Your task to perform on an android device: turn pop-ups off in chrome Image 0: 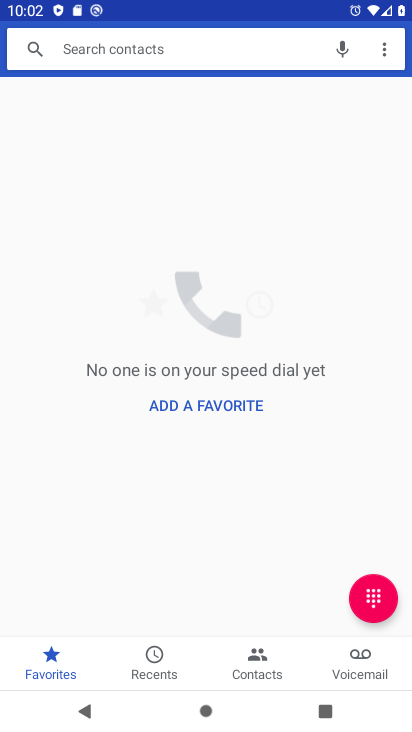
Step 0: press back button
Your task to perform on an android device: turn pop-ups off in chrome Image 1: 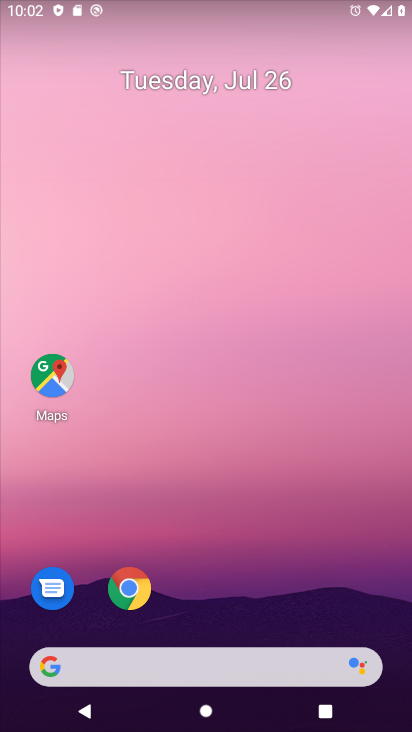
Step 1: click (131, 592)
Your task to perform on an android device: turn pop-ups off in chrome Image 2: 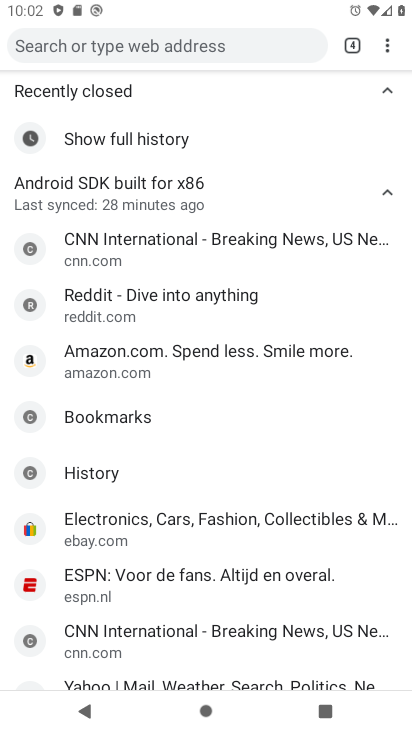
Step 2: drag from (389, 44) to (238, 379)
Your task to perform on an android device: turn pop-ups off in chrome Image 3: 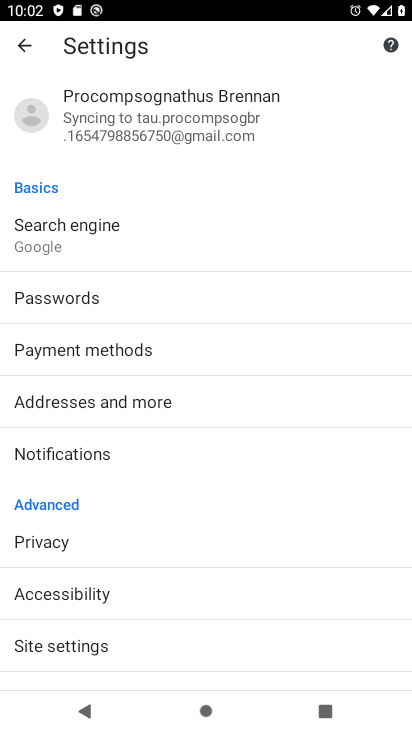
Step 3: click (88, 647)
Your task to perform on an android device: turn pop-ups off in chrome Image 4: 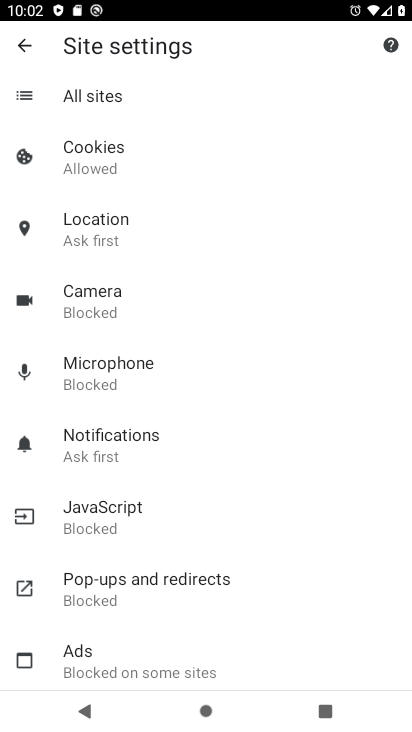
Step 4: click (92, 601)
Your task to perform on an android device: turn pop-ups off in chrome Image 5: 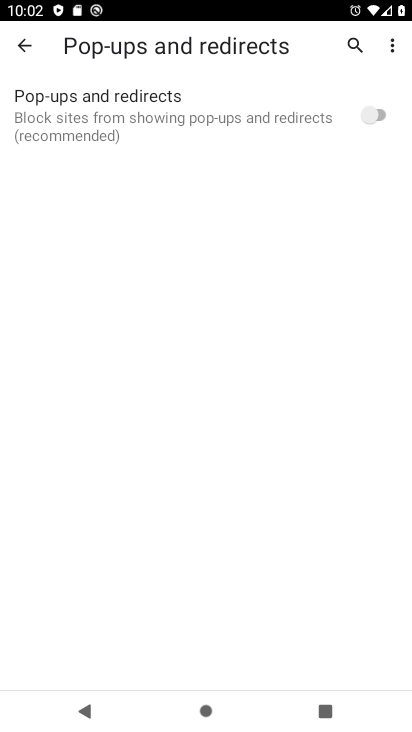
Step 5: task complete